Your task to perform on an android device: Open maps Image 0: 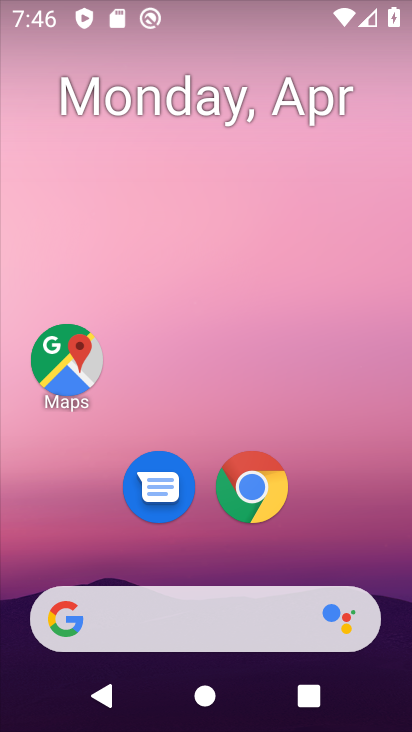
Step 0: drag from (328, 520) to (328, 65)
Your task to perform on an android device: Open maps Image 1: 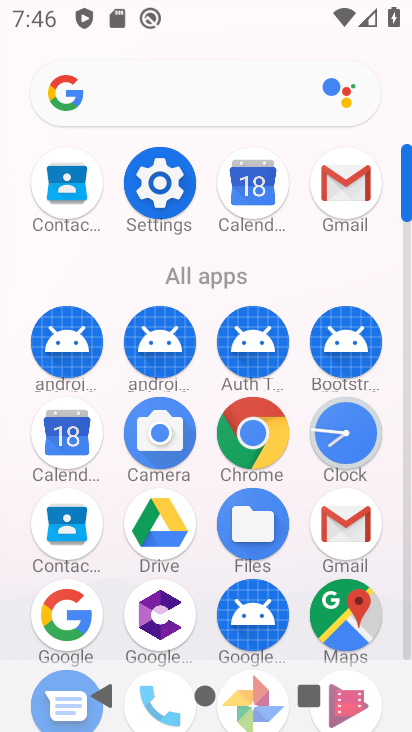
Step 1: drag from (202, 564) to (214, 192)
Your task to perform on an android device: Open maps Image 2: 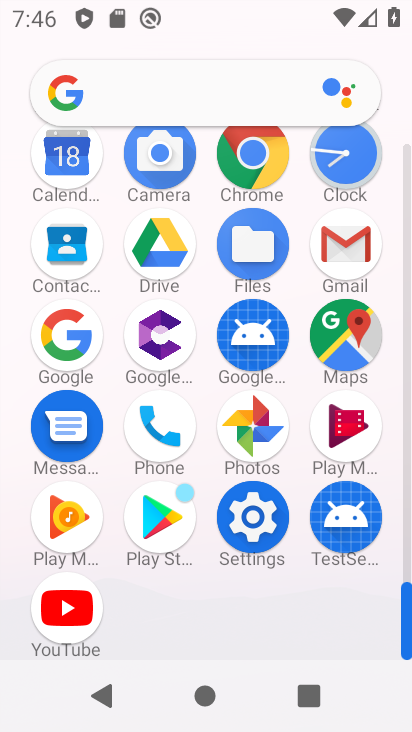
Step 2: click (351, 340)
Your task to perform on an android device: Open maps Image 3: 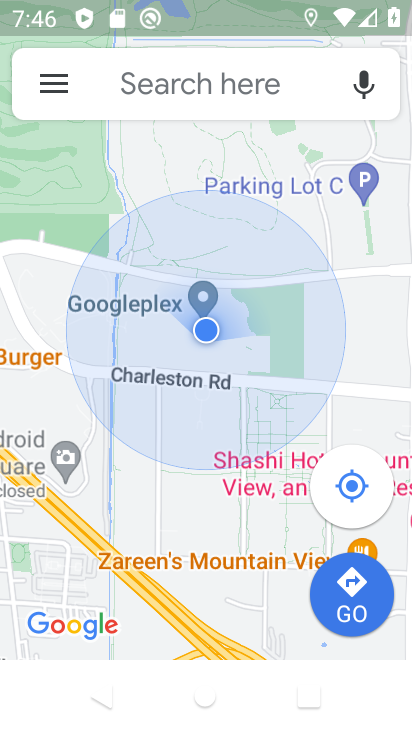
Step 3: task complete